Your task to perform on an android device: open a bookmark in the chrome app Image 0: 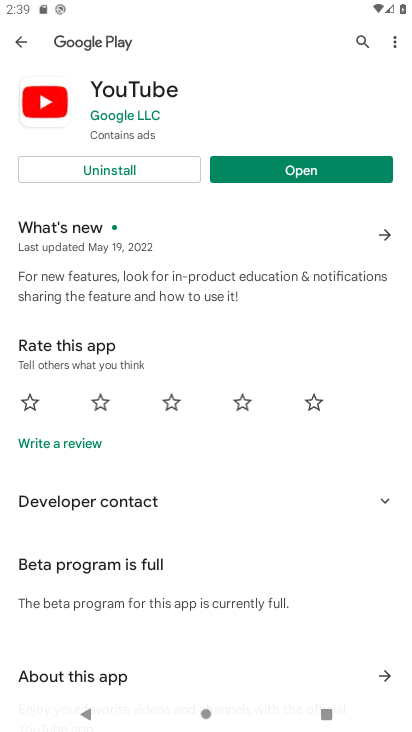
Step 0: press home button
Your task to perform on an android device: open a bookmark in the chrome app Image 1: 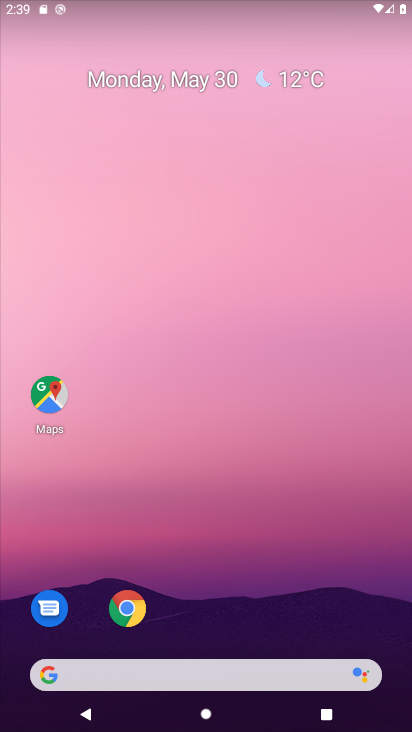
Step 1: click (137, 617)
Your task to perform on an android device: open a bookmark in the chrome app Image 2: 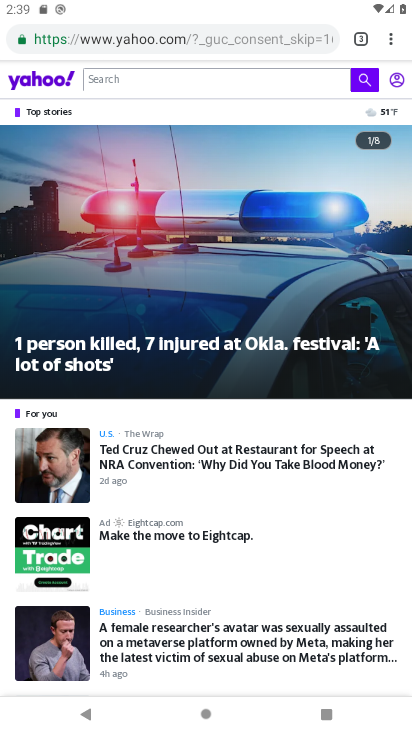
Step 2: click (386, 42)
Your task to perform on an android device: open a bookmark in the chrome app Image 3: 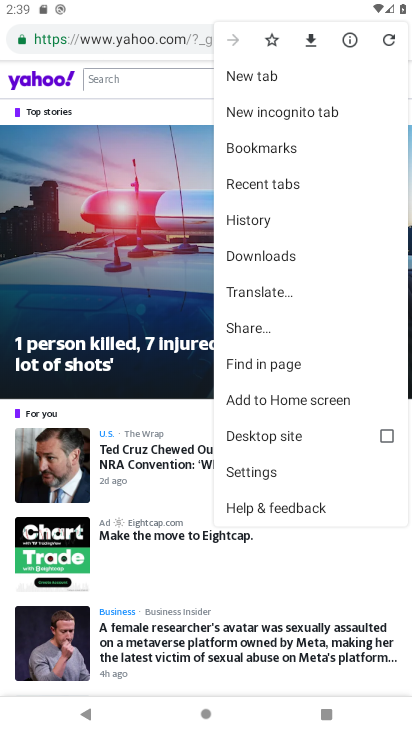
Step 3: click (287, 149)
Your task to perform on an android device: open a bookmark in the chrome app Image 4: 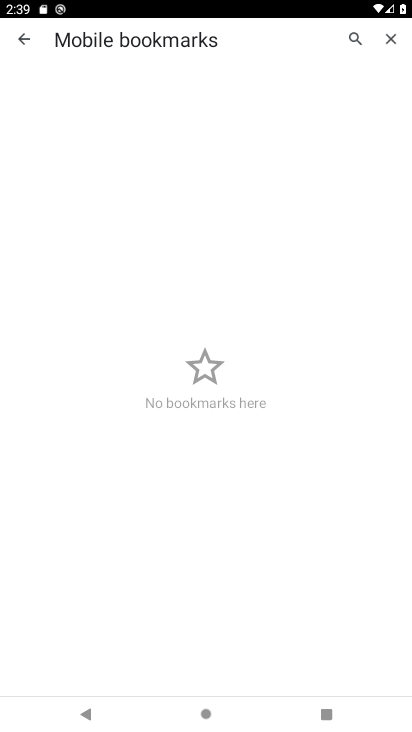
Step 4: task complete